Your task to perform on an android device: Show me recent news Image 0: 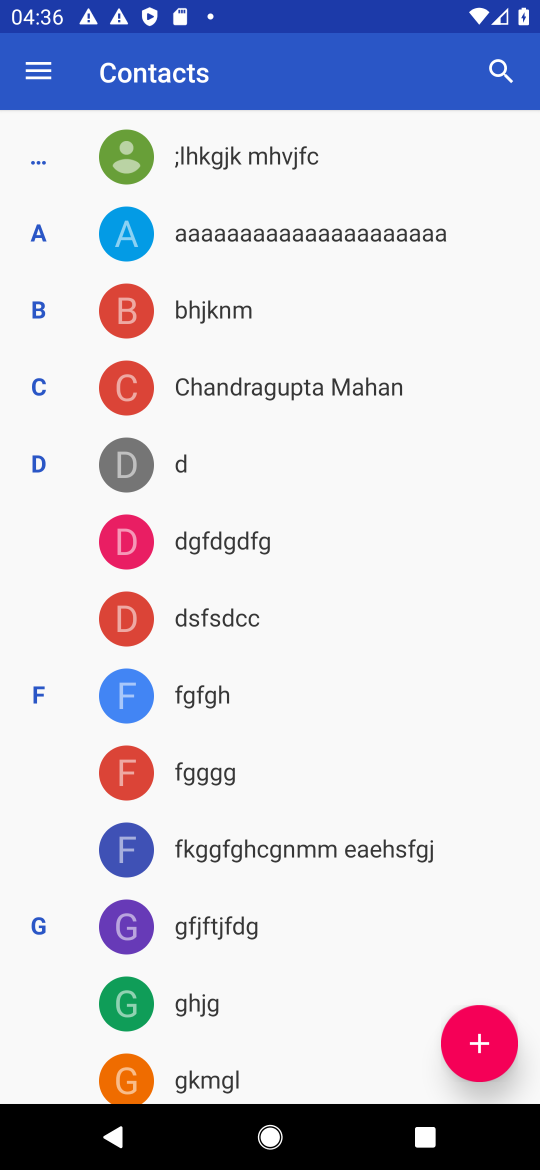
Step 0: press back button
Your task to perform on an android device: Show me recent news Image 1: 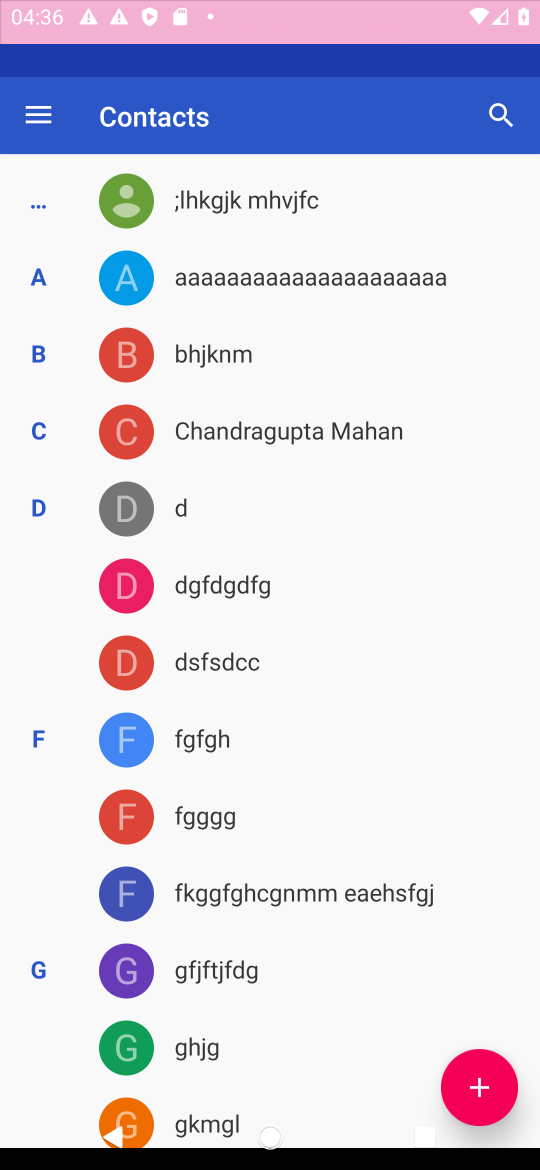
Step 1: press back button
Your task to perform on an android device: Show me recent news Image 2: 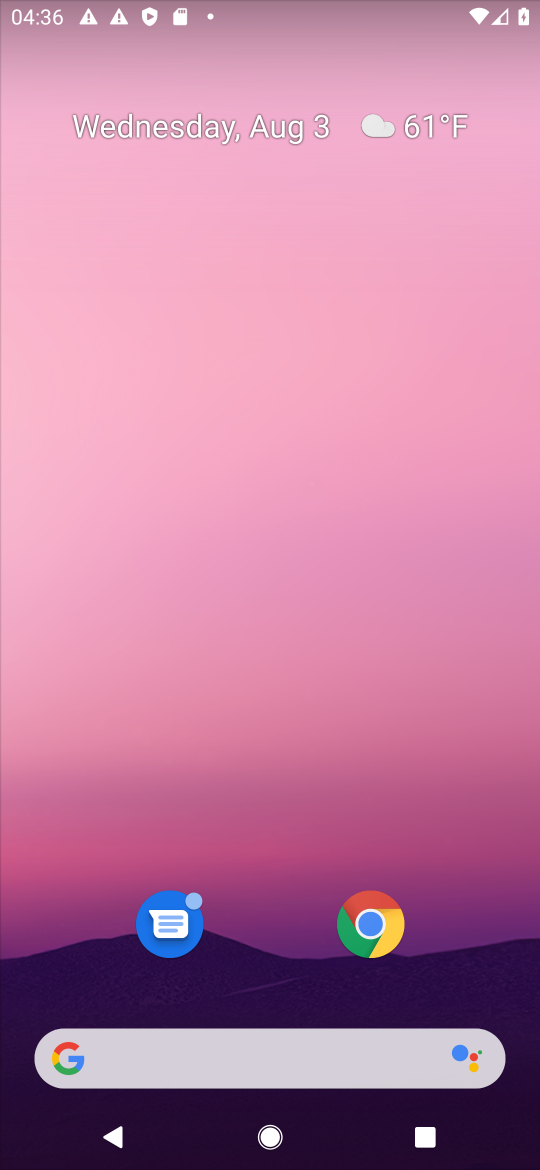
Step 2: drag from (264, 949) to (200, 420)
Your task to perform on an android device: Show me recent news Image 3: 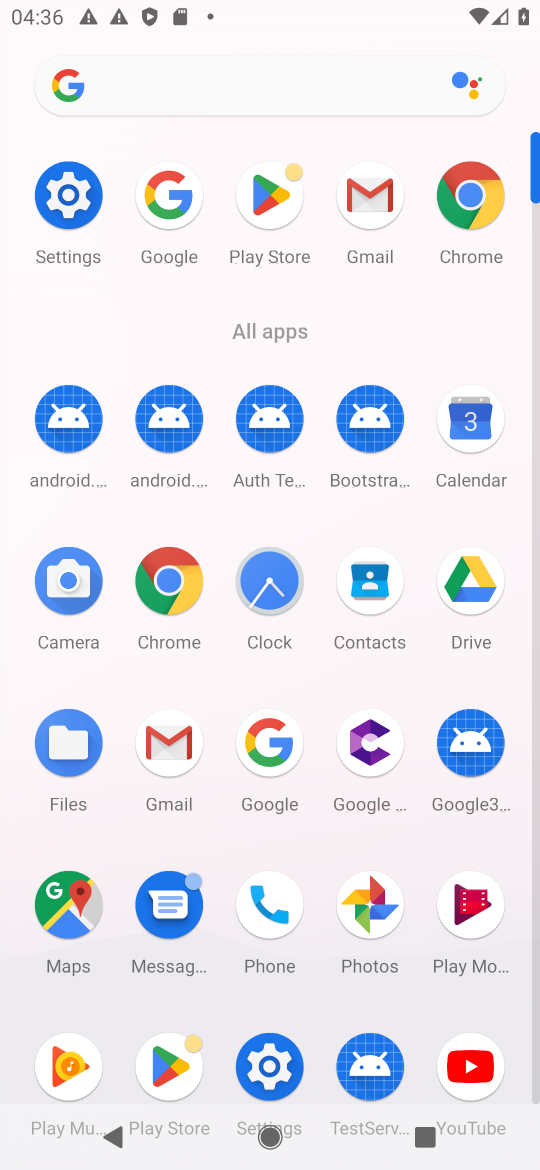
Step 3: click (285, 736)
Your task to perform on an android device: Show me recent news Image 4: 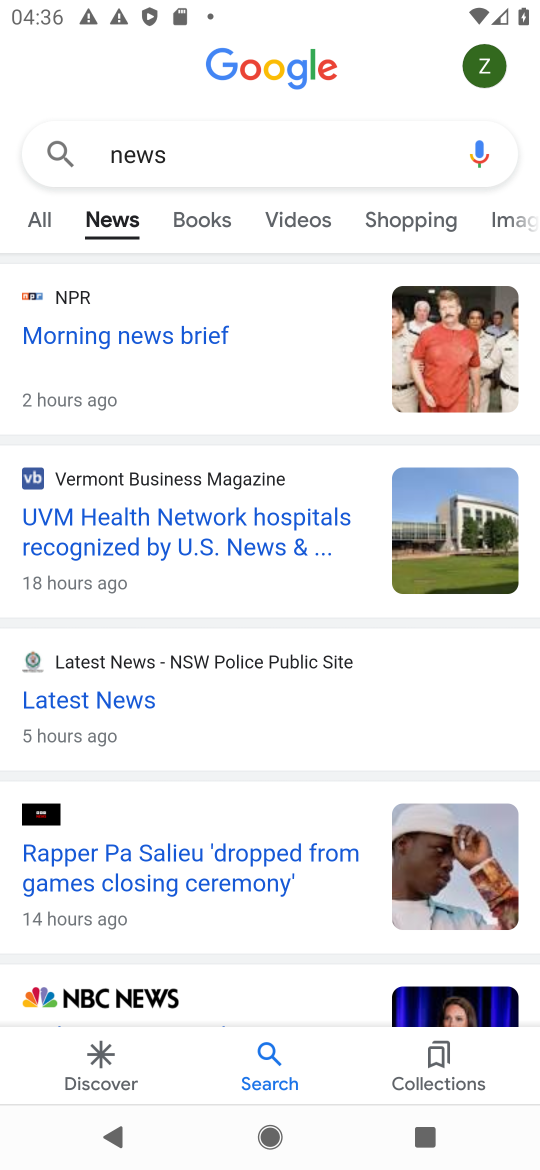
Step 4: task complete